Your task to perform on an android device: create a new album in the google photos Image 0: 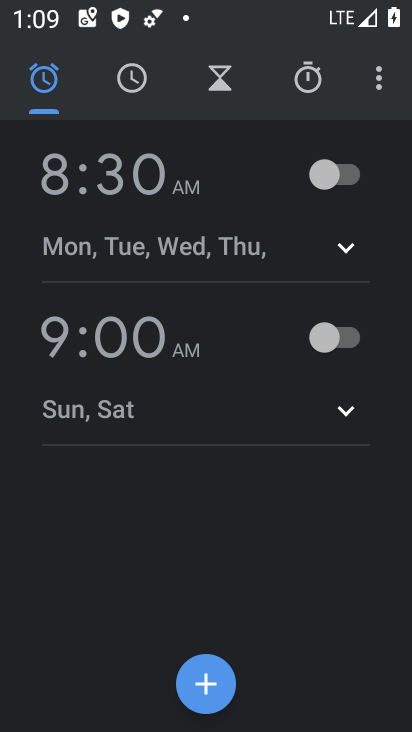
Step 0: press home button
Your task to perform on an android device: create a new album in the google photos Image 1: 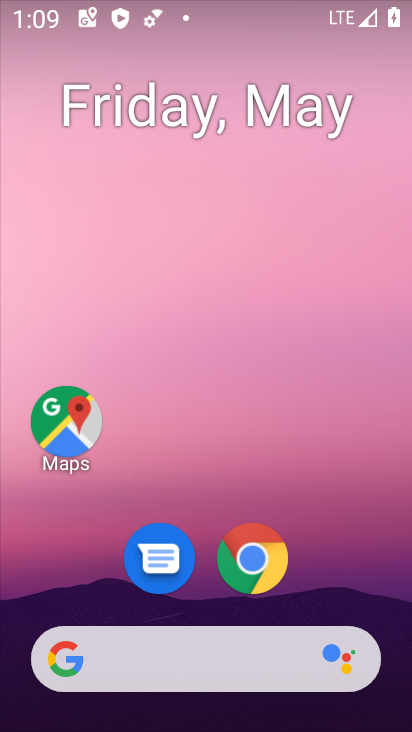
Step 1: drag from (394, 601) to (281, 119)
Your task to perform on an android device: create a new album in the google photos Image 2: 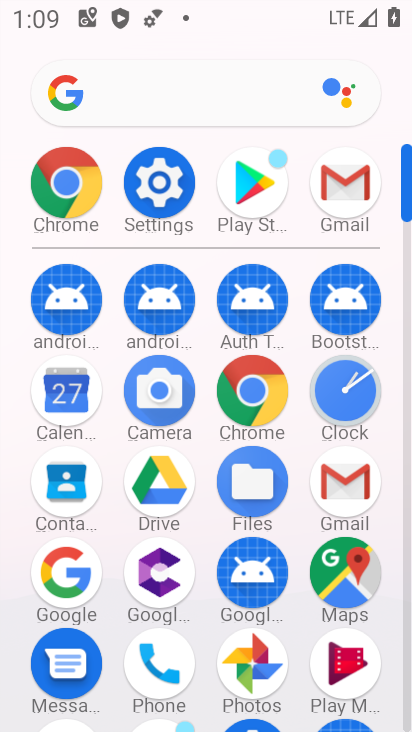
Step 2: click (256, 677)
Your task to perform on an android device: create a new album in the google photos Image 3: 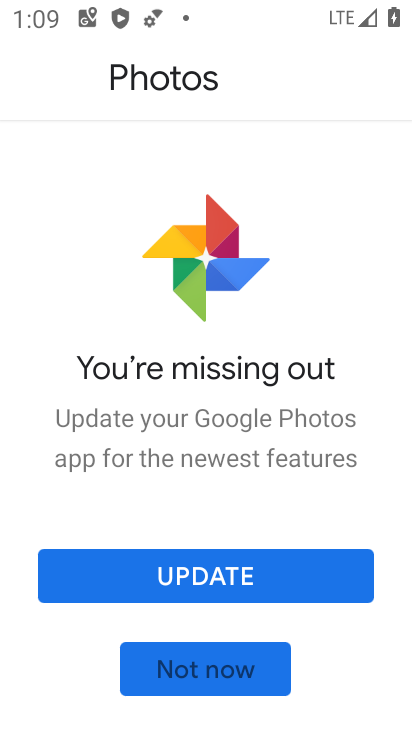
Step 3: click (239, 569)
Your task to perform on an android device: create a new album in the google photos Image 4: 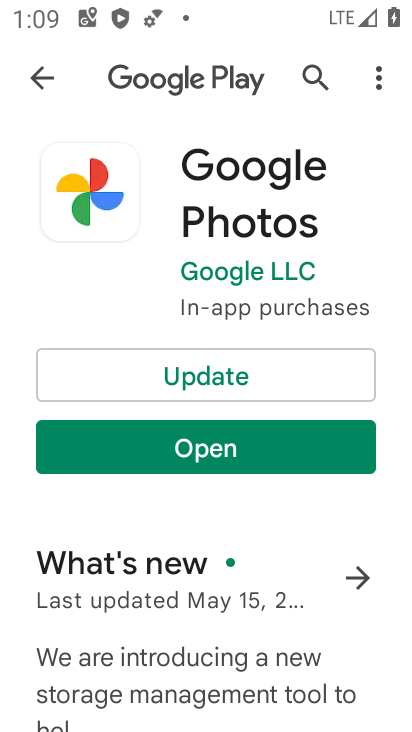
Step 4: click (215, 377)
Your task to perform on an android device: create a new album in the google photos Image 5: 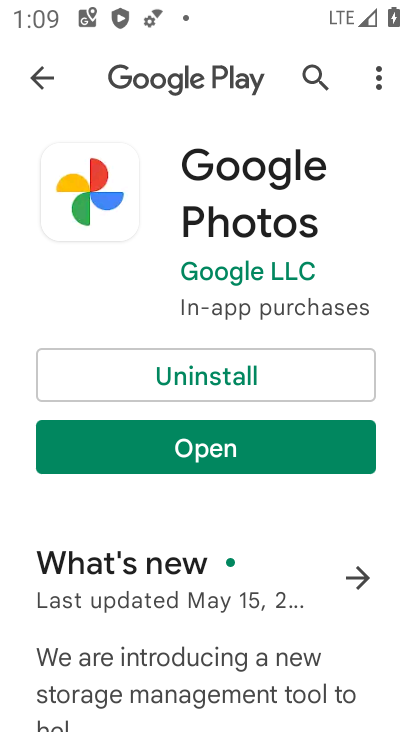
Step 5: click (213, 454)
Your task to perform on an android device: create a new album in the google photos Image 6: 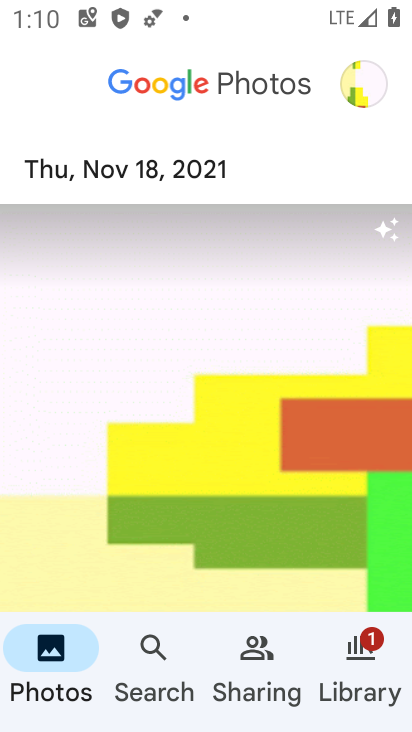
Step 6: click (370, 648)
Your task to perform on an android device: create a new album in the google photos Image 7: 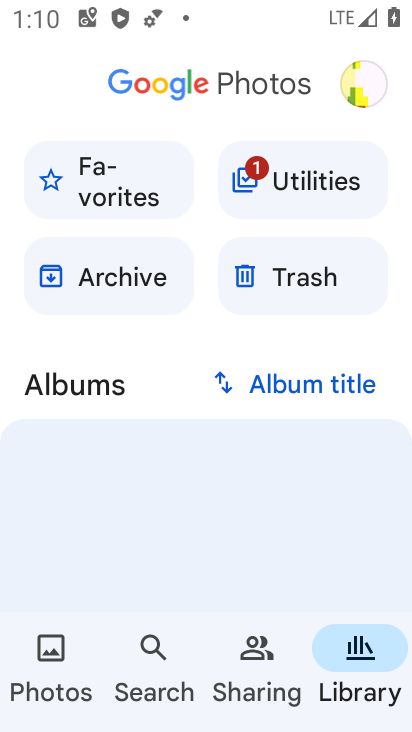
Step 7: drag from (236, 501) to (204, 163)
Your task to perform on an android device: create a new album in the google photos Image 8: 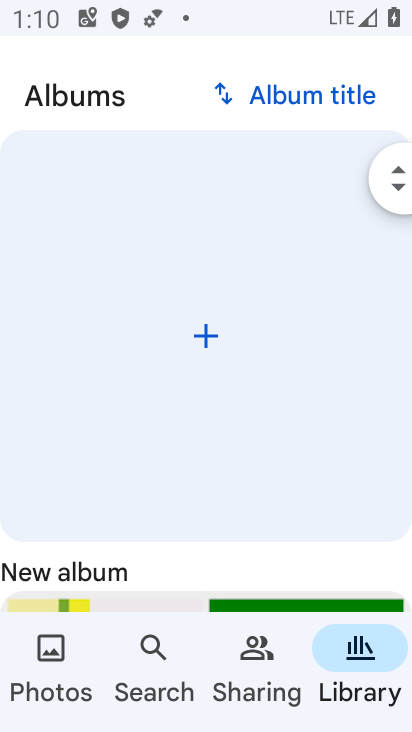
Step 8: click (209, 319)
Your task to perform on an android device: create a new album in the google photos Image 9: 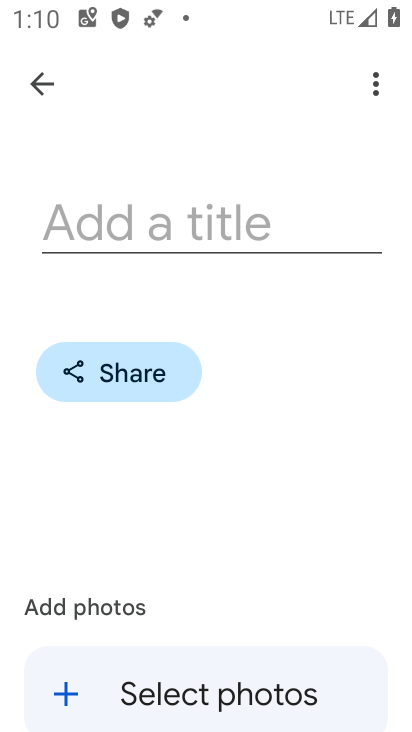
Step 9: click (184, 237)
Your task to perform on an android device: create a new album in the google photos Image 10: 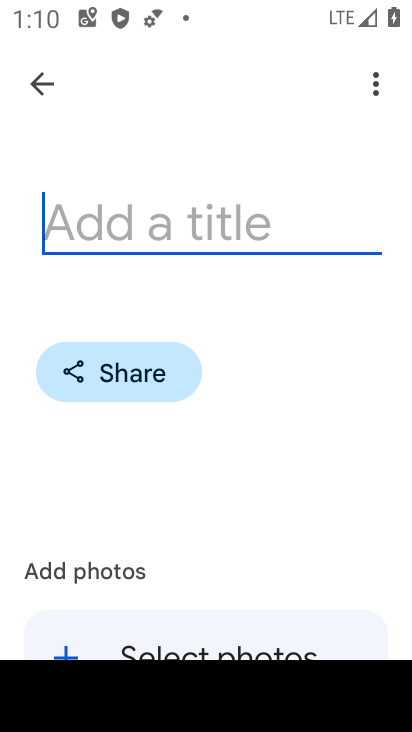
Step 10: type "vjhvhjvjhvh"
Your task to perform on an android device: create a new album in the google photos Image 11: 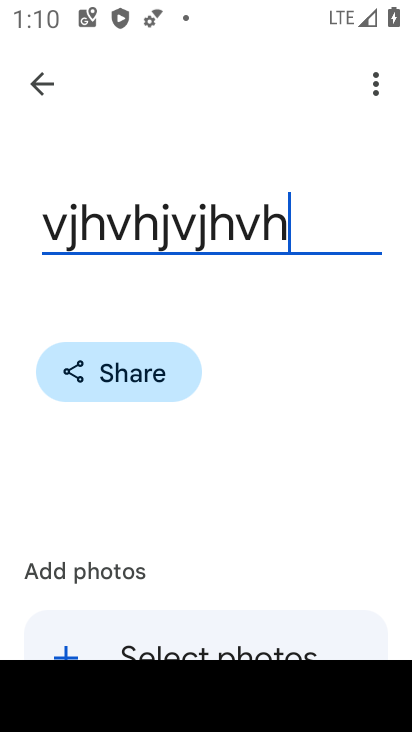
Step 11: drag from (188, 508) to (143, 201)
Your task to perform on an android device: create a new album in the google photos Image 12: 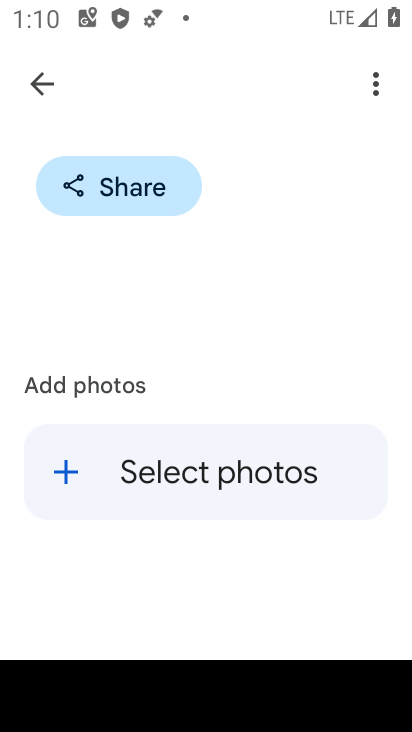
Step 12: click (214, 484)
Your task to perform on an android device: create a new album in the google photos Image 13: 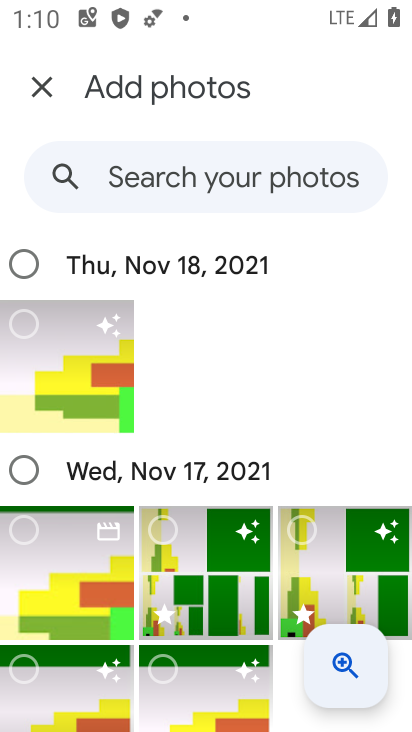
Step 13: click (80, 370)
Your task to perform on an android device: create a new album in the google photos Image 14: 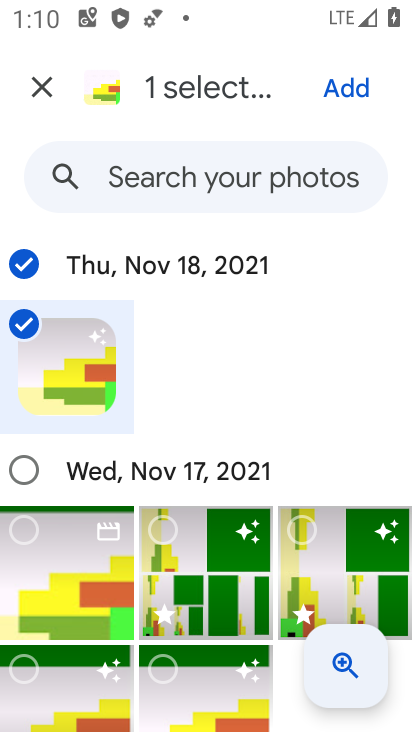
Step 14: click (339, 92)
Your task to perform on an android device: create a new album in the google photos Image 15: 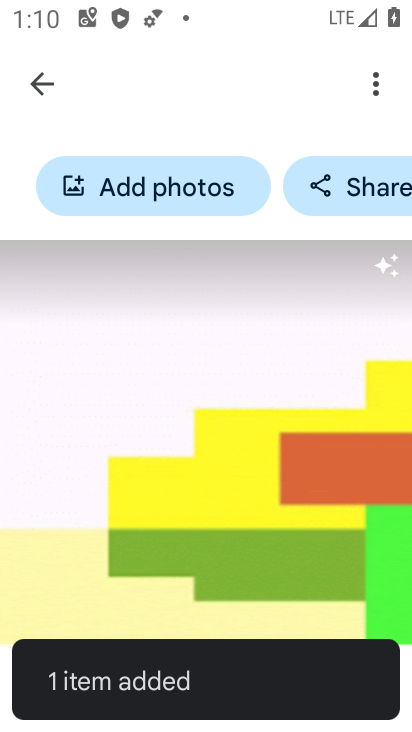
Step 15: task complete